Your task to perform on an android device: delete a single message in the gmail app Image 0: 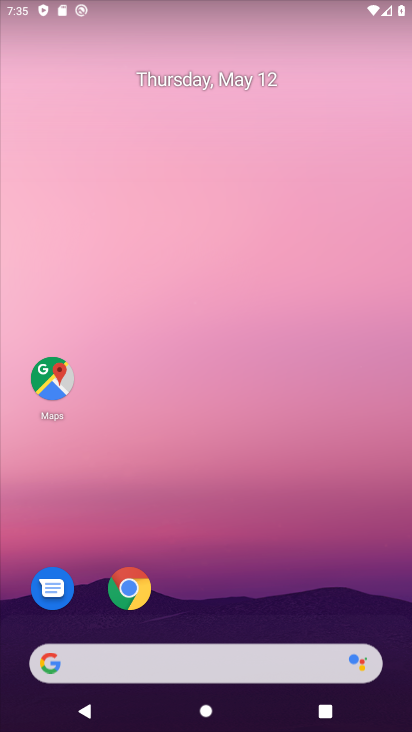
Step 0: drag from (310, 210) to (322, 50)
Your task to perform on an android device: delete a single message in the gmail app Image 1: 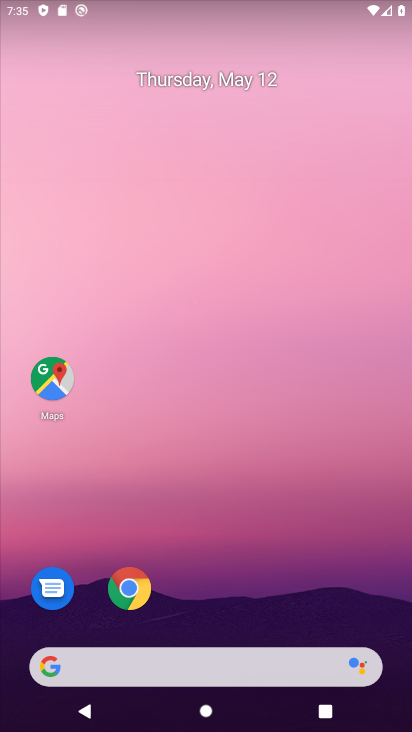
Step 1: drag from (223, 583) to (297, 109)
Your task to perform on an android device: delete a single message in the gmail app Image 2: 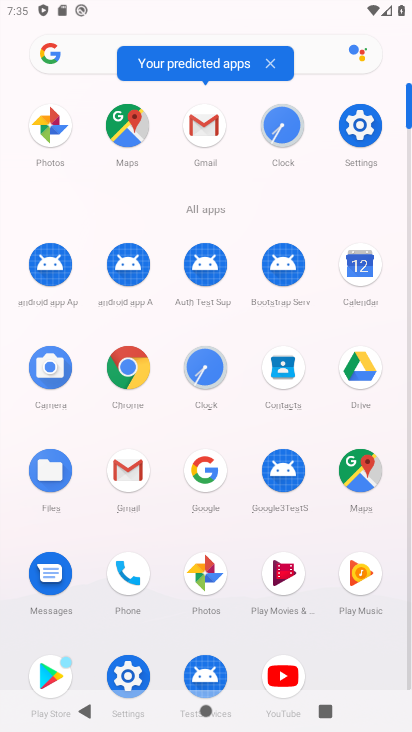
Step 2: click (132, 478)
Your task to perform on an android device: delete a single message in the gmail app Image 3: 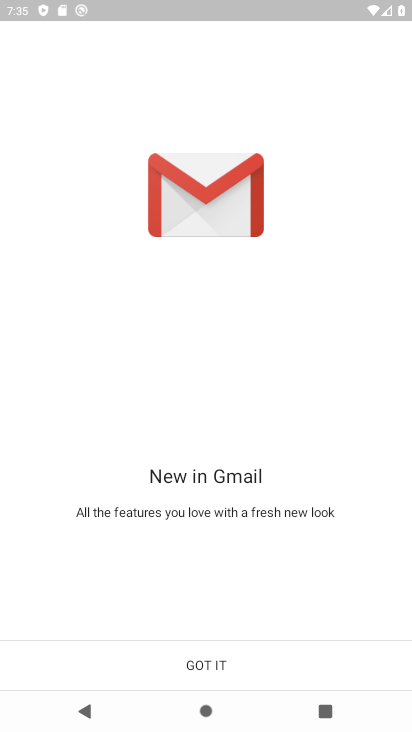
Step 3: click (206, 661)
Your task to perform on an android device: delete a single message in the gmail app Image 4: 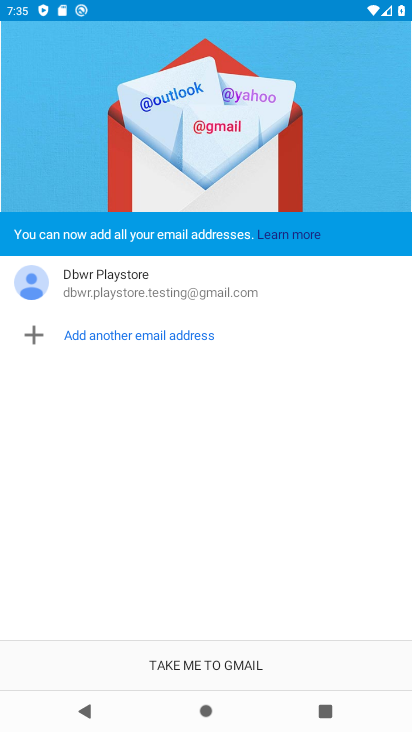
Step 4: click (244, 658)
Your task to perform on an android device: delete a single message in the gmail app Image 5: 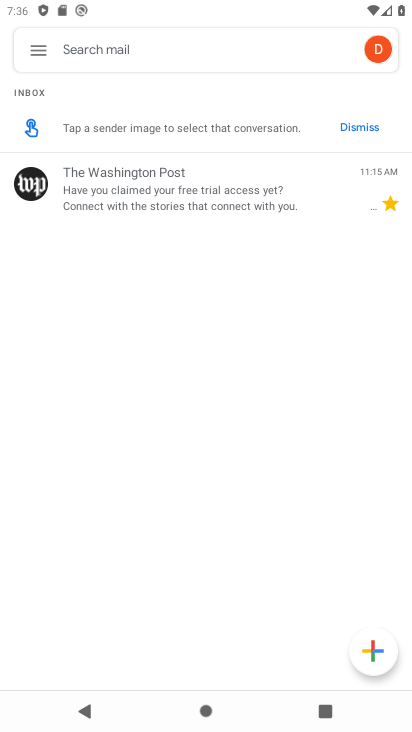
Step 5: click (21, 193)
Your task to perform on an android device: delete a single message in the gmail app Image 6: 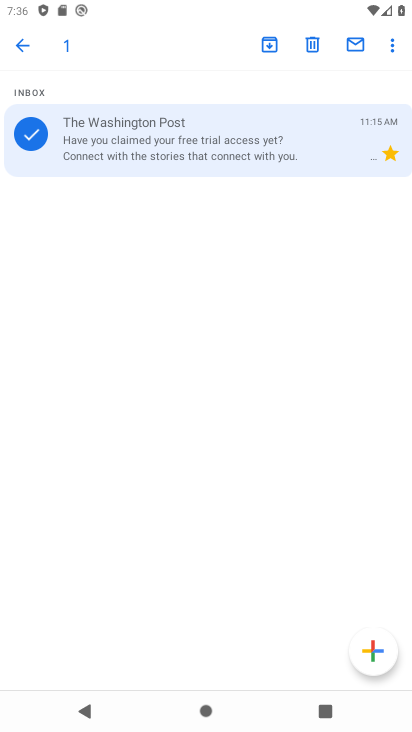
Step 6: click (310, 59)
Your task to perform on an android device: delete a single message in the gmail app Image 7: 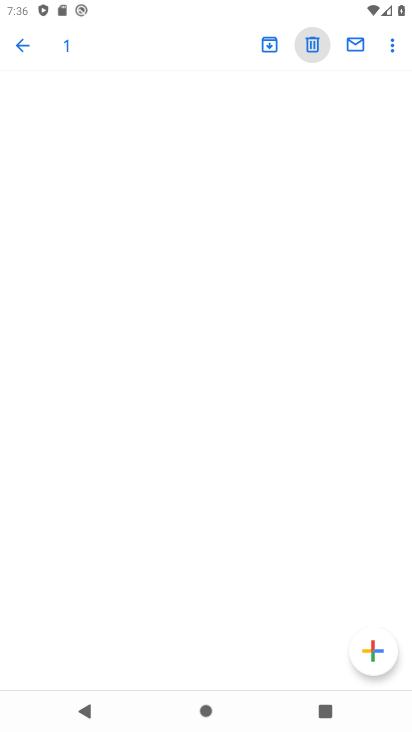
Step 7: click (310, 52)
Your task to perform on an android device: delete a single message in the gmail app Image 8: 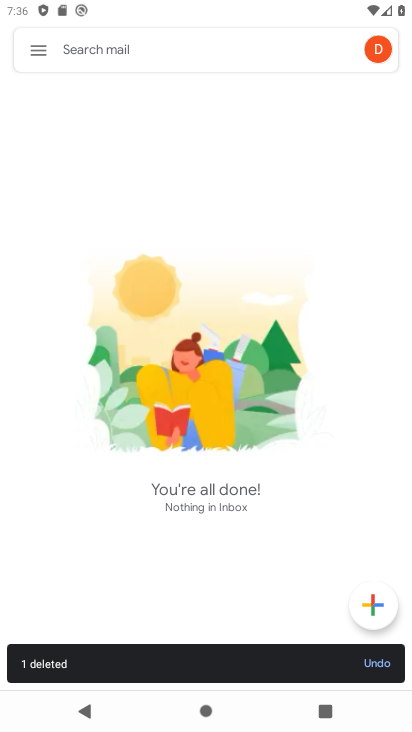
Step 8: task complete